Your task to perform on an android device: Open Google Maps and go to "Timeline" Image 0: 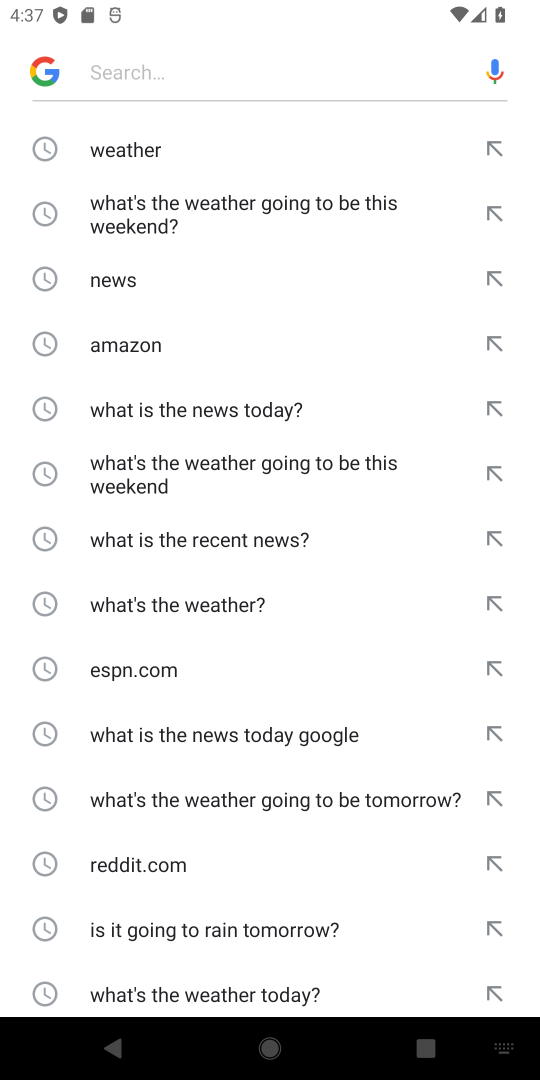
Step 0: press home button
Your task to perform on an android device: Open Google Maps and go to "Timeline" Image 1: 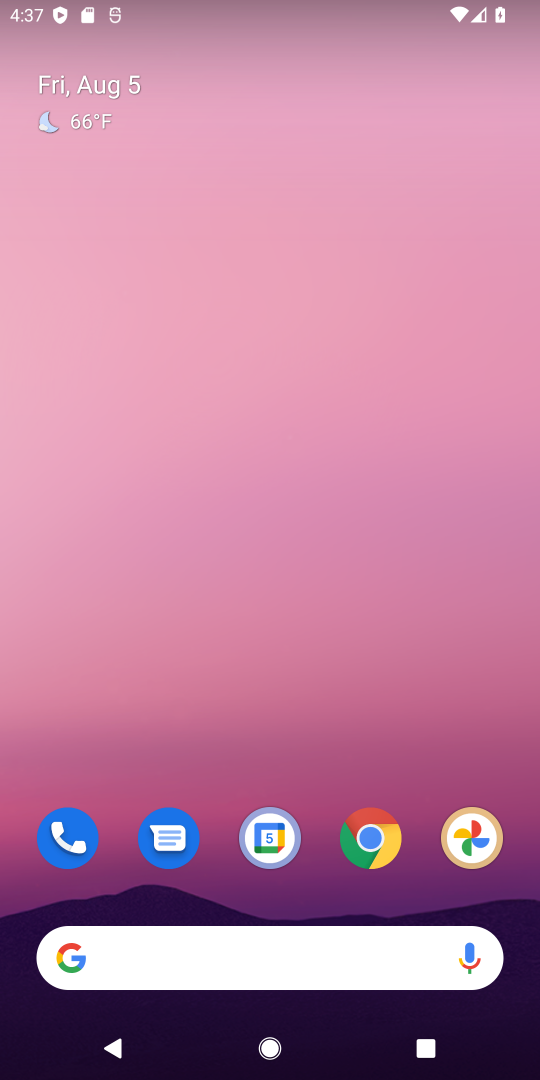
Step 1: drag from (250, 941) to (292, 149)
Your task to perform on an android device: Open Google Maps and go to "Timeline" Image 2: 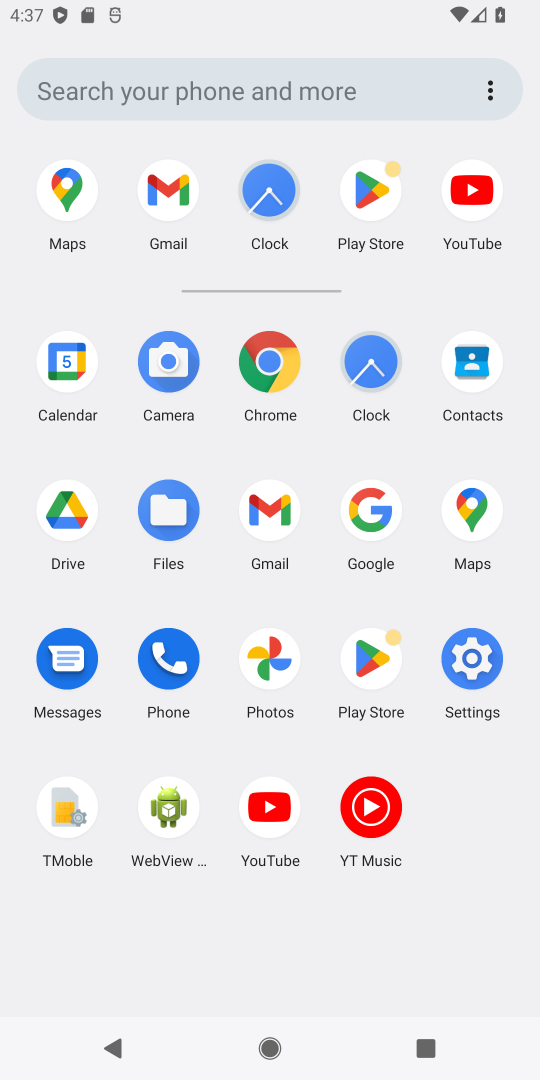
Step 2: click (462, 548)
Your task to perform on an android device: Open Google Maps and go to "Timeline" Image 3: 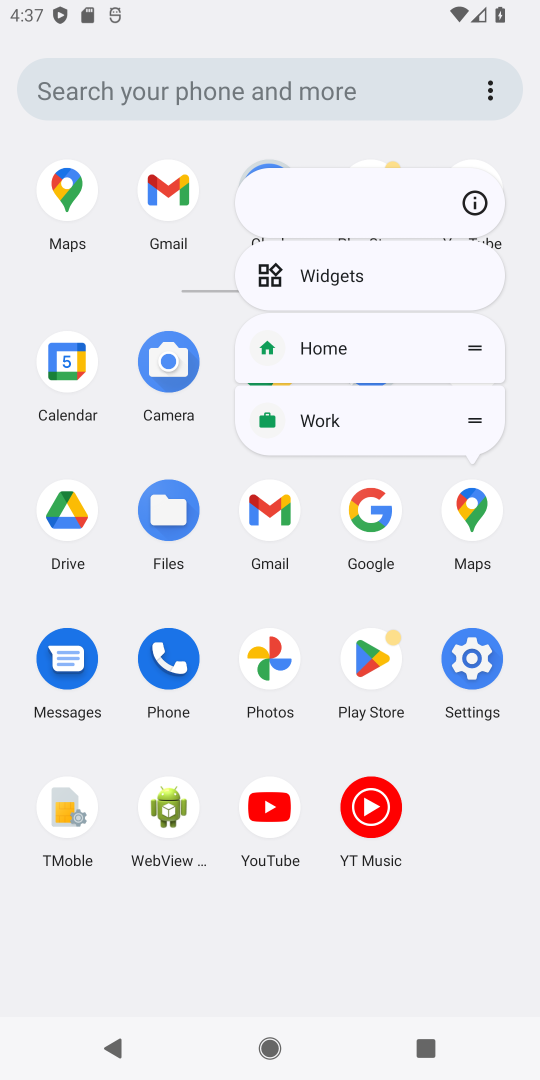
Step 3: click (465, 523)
Your task to perform on an android device: Open Google Maps and go to "Timeline" Image 4: 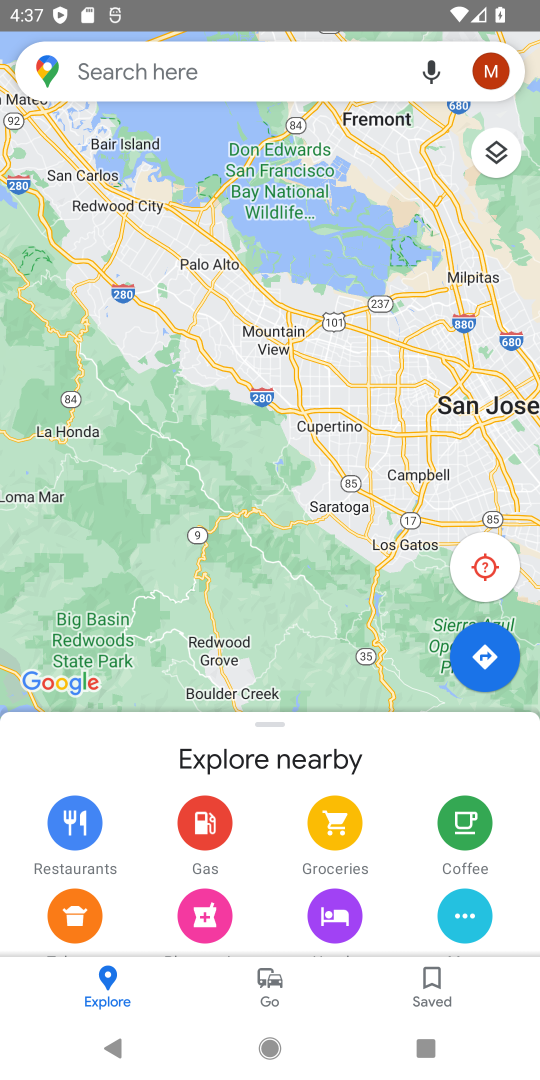
Step 4: click (61, 69)
Your task to perform on an android device: Open Google Maps and go to "Timeline" Image 5: 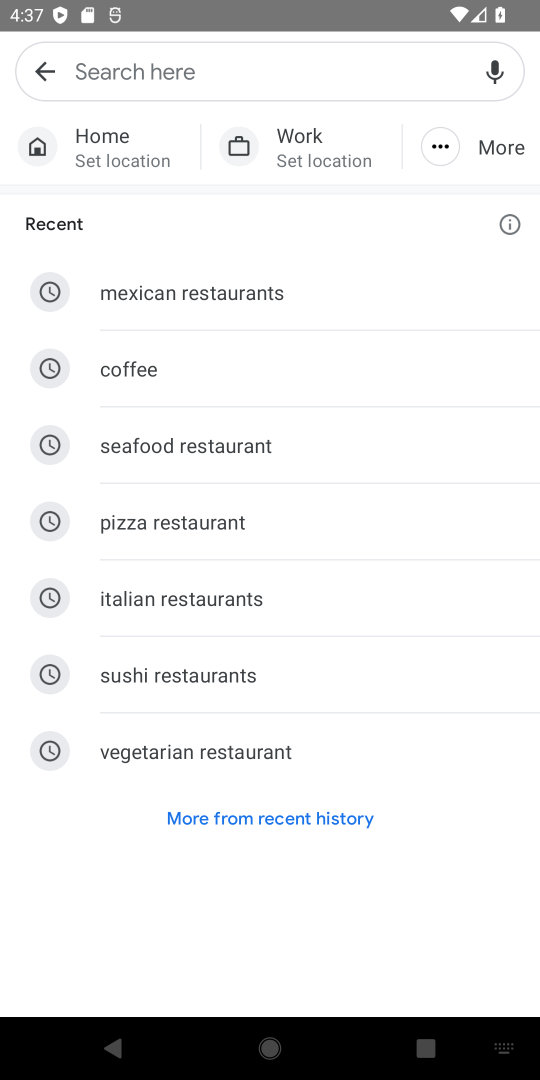
Step 5: click (24, 49)
Your task to perform on an android device: Open Google Maps and go to "Timeline" Image 6: 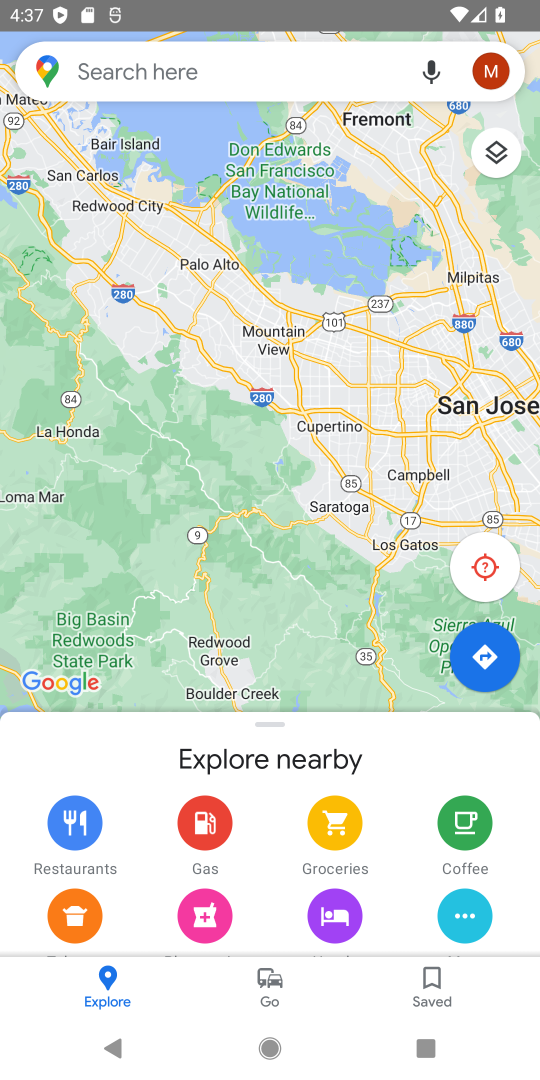
Step 6: click (462, 133)
Your task to perform on an android device: Open Google Maps and go to "Timeline" Image 7: 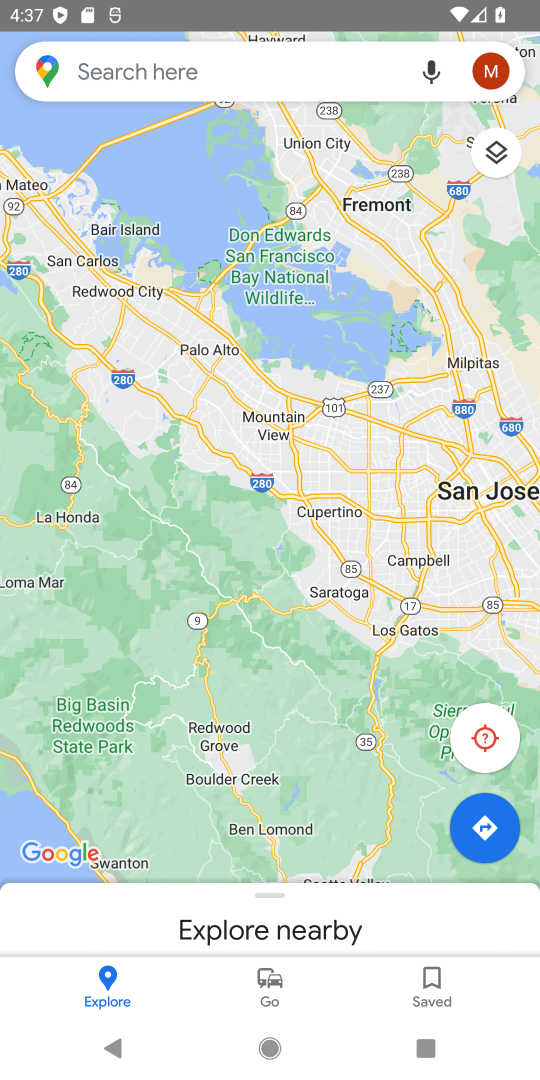
Step 7: click (271, 62)
Your task to perform on an android device: Open Google Maps and go to "Timeline" Image 8: 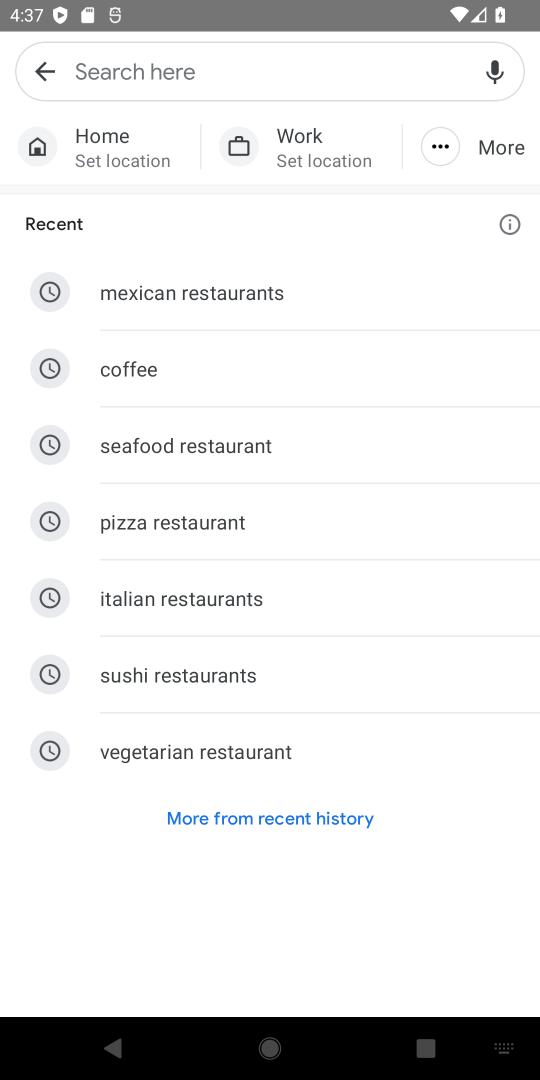
Step 8: click (438, 152)
Your task to perform on an android device: Open Google Maps and go to "Timeline" Image 9: 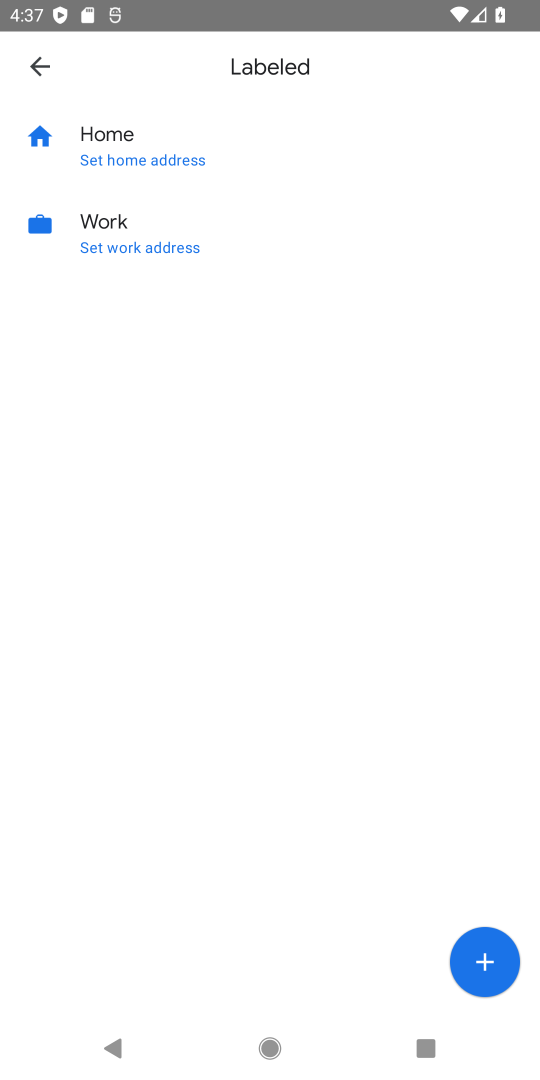
Step 9: click (62, 79)
Your task to perform on an android device: Open Google Maps and go to "Timeline" Image 10: 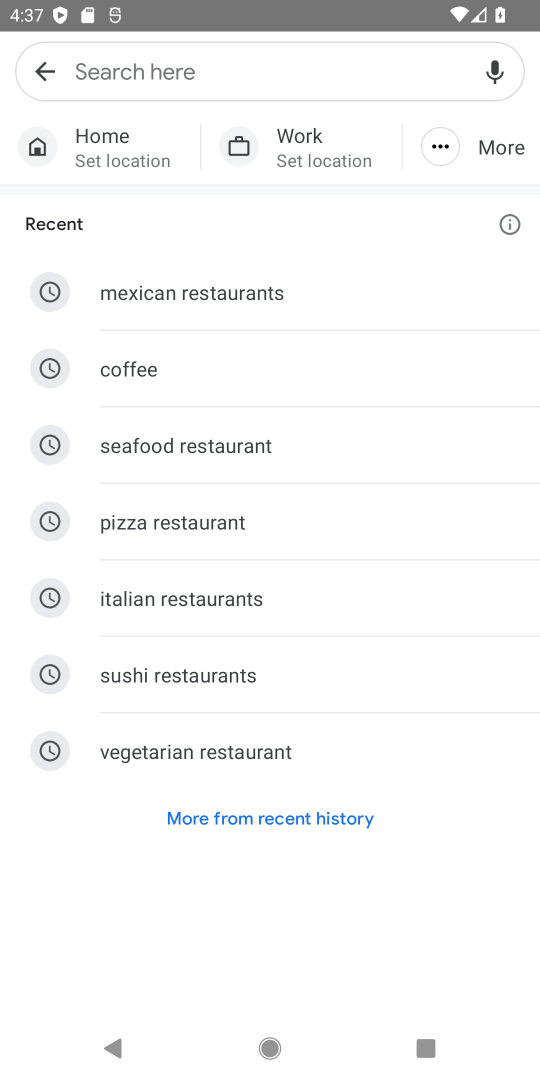
Step 10: click (43, 65)
Your task to perform on an android device: Open Google Maps and go to "Timeline" Image 11: 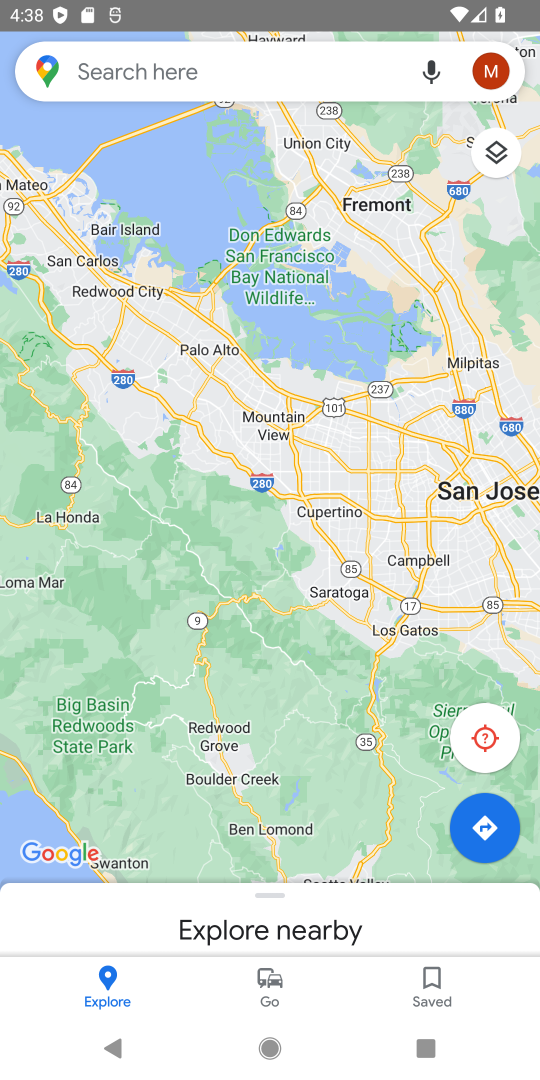
Step 11: click (505, 141)
Your task to perform on an android device: Open Google Maps and go to "Timeline" Image 12: 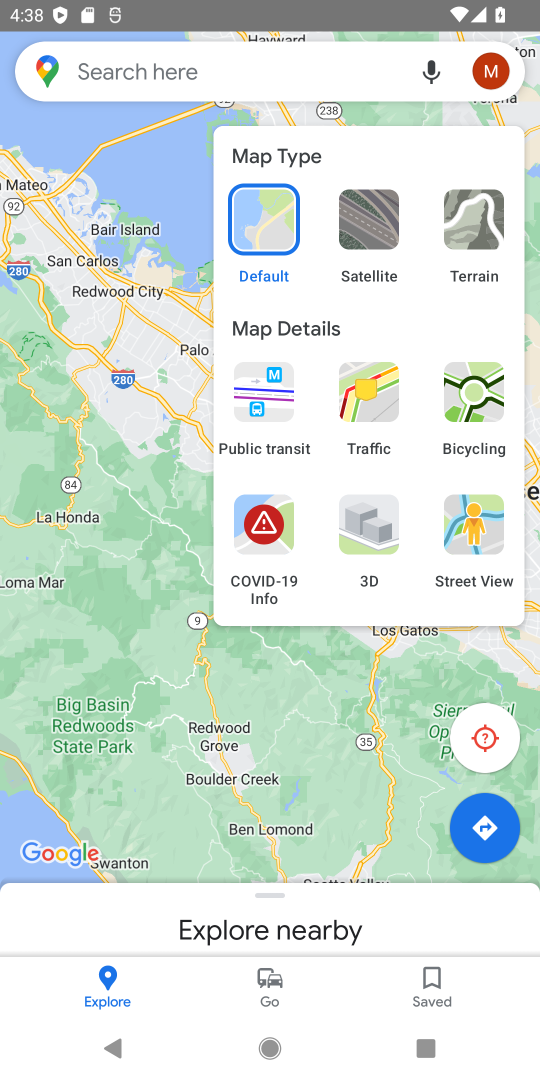
Step 12: click (271, 979)
Your task to perform on an android device: Open Google Maps and go to "Timeline" Image 13: 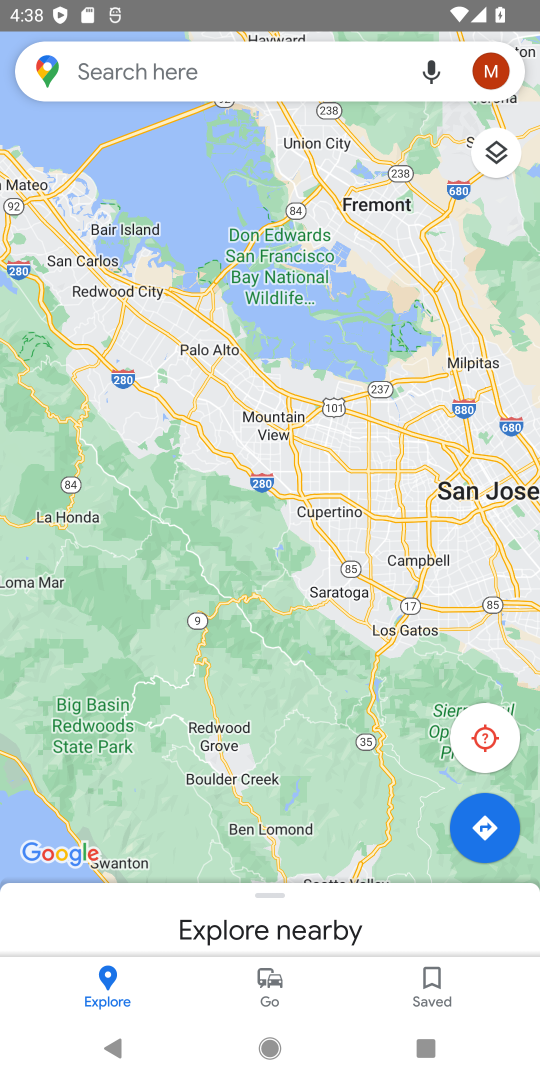
Step 13: click (261, 64)
Your task to perform on an android device: Open Google Maps and go to "Timeline" Image 14: 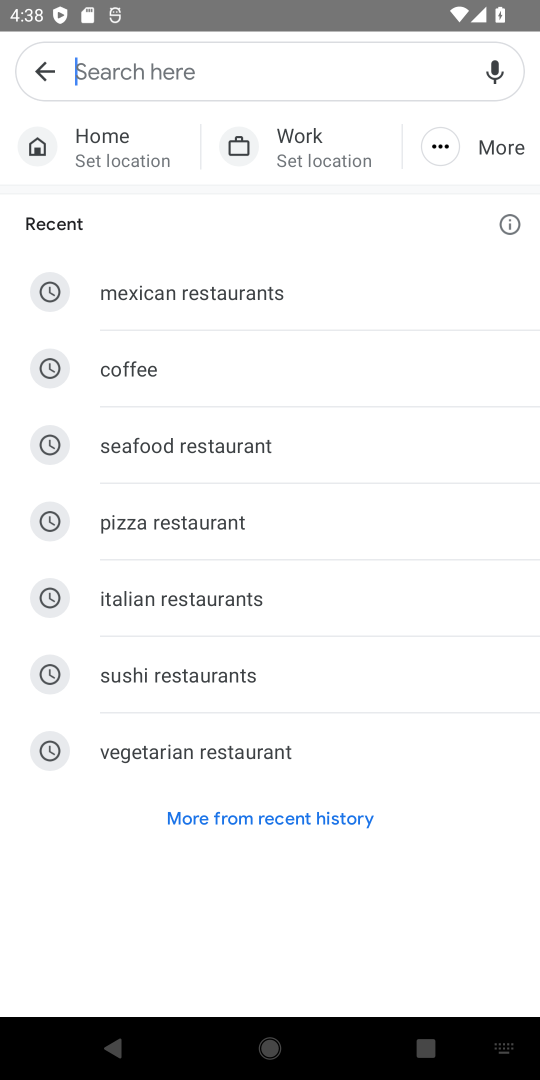
Step 14: click (154, 147)
Your task to perform on an android device: Open Google Maps and go to "Timeline" Image 15: 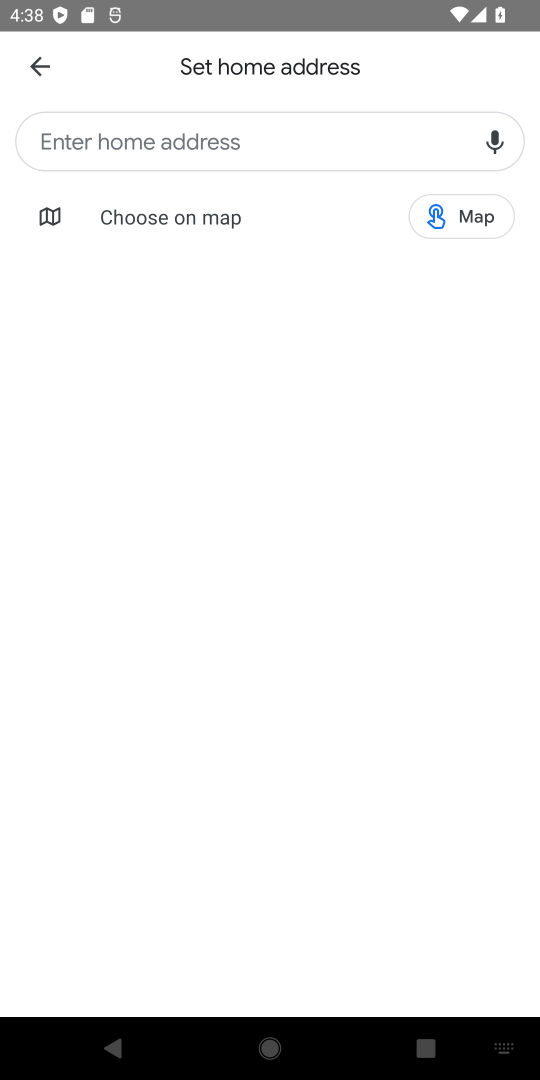
Step 15: task complete